Your task to perform on an android device: Go to display settings Image 0: 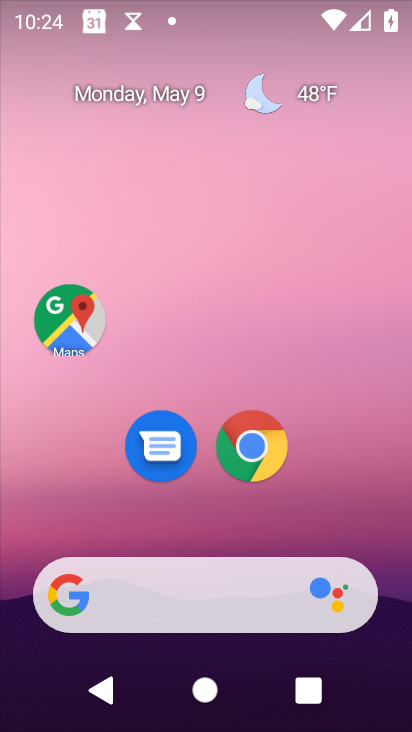
Step 0: drag from (344, 476) to (329, 1)
Your task to perform on an android device: Go to display settings Image 1: 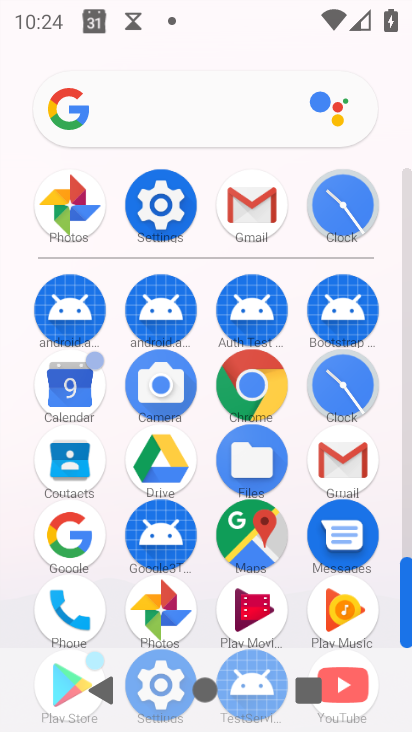
Step 1: click (160, 195)
Your task to perform on an android device: Go to display settings Image 2: 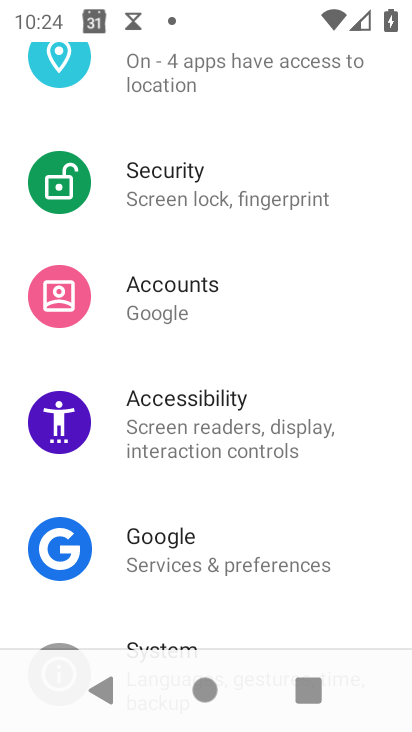
Step 2: drag from (262, 213) to (250, 281)
Your task to perform on an android device: Go to display settings Image 3: 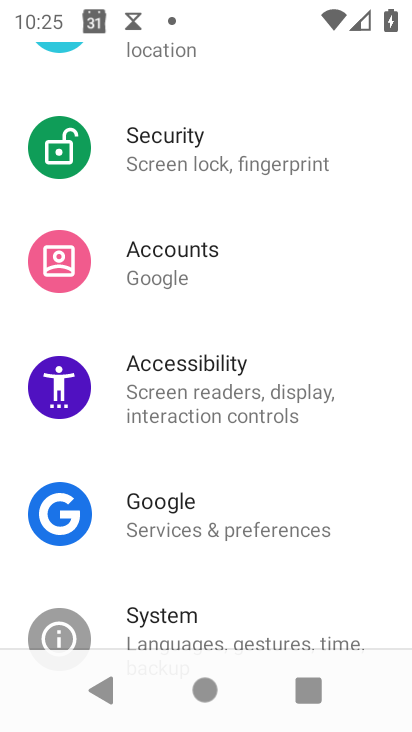
Step 3: drag from (273, 248) to (288, 578)
Your task to perform on an android device: Go to display settings Image 4: 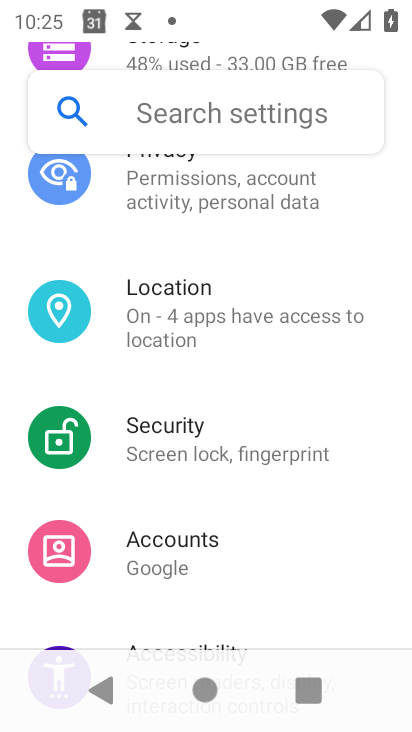
Step 4: drag from (247, 248) to (279, 587)
Your task to perform on an android device: Go to display settings Image 5: 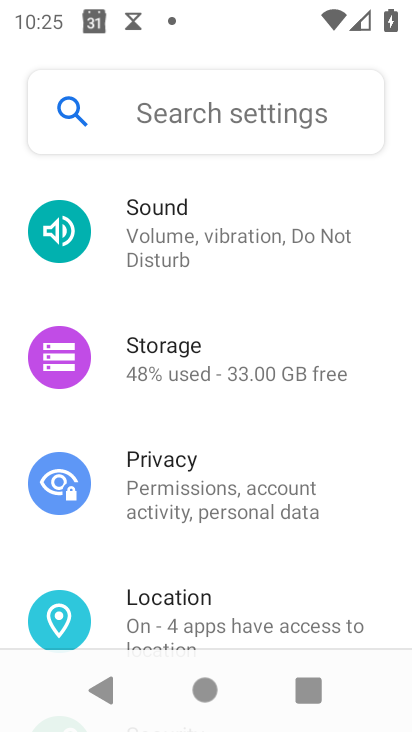
Step 5: drag from (270, 290) to (267, 546)
Your task to perform on an android device: Go to display settings Image 6: 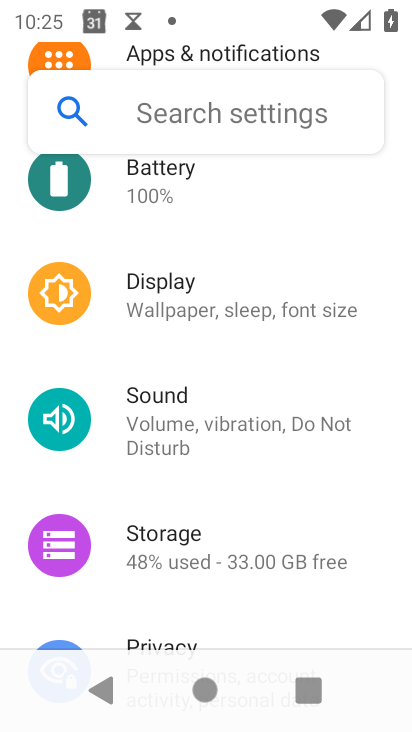
Step 6: click (244, 311)
Your task to perform on an android device: Go to display settings Image 7: 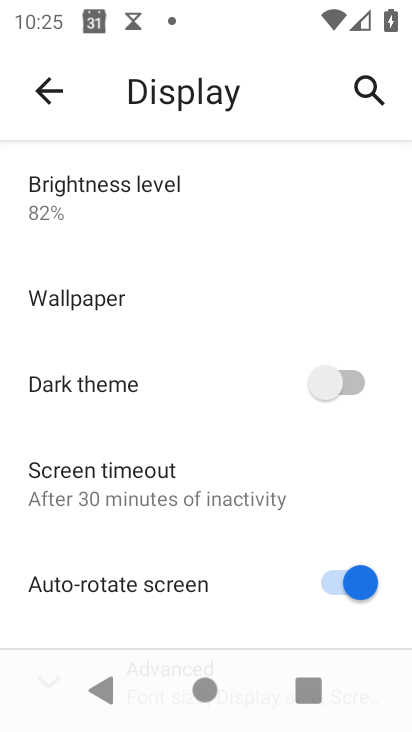
Step 7: task complete